Your task to perform on an android device: Open accessibility settings Image 0: 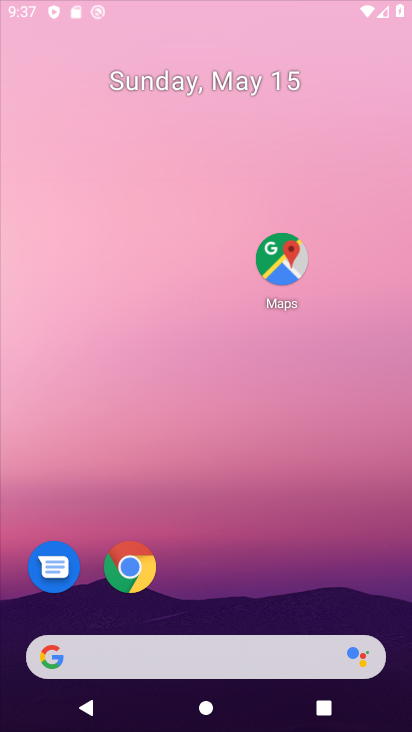
Step 0: click (344, 353)
Your task to perform on an android device: Open accessibility settings Image 1: 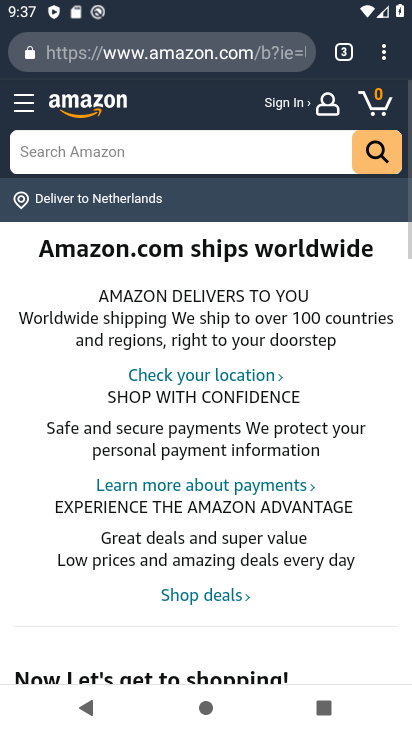
Step 1: press home button
Your task to perform on an android device: Open accessibility settings Image 2: 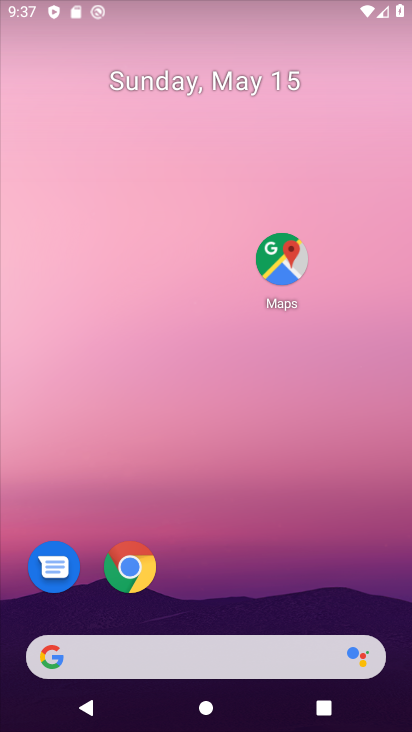
Step 2: drag from (257, 538) to (223, 3)
Your task to perform on an android device: Open accessibility settings Image 3: 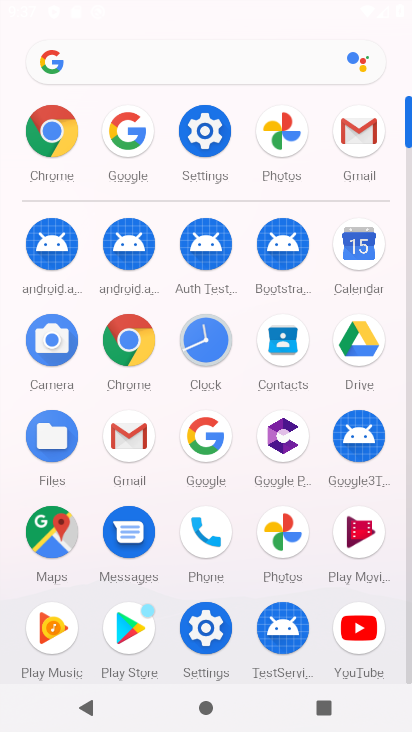
Step 3: click (200, 133)
Your task to perform on an android device: Open accessibility settings Image 4: 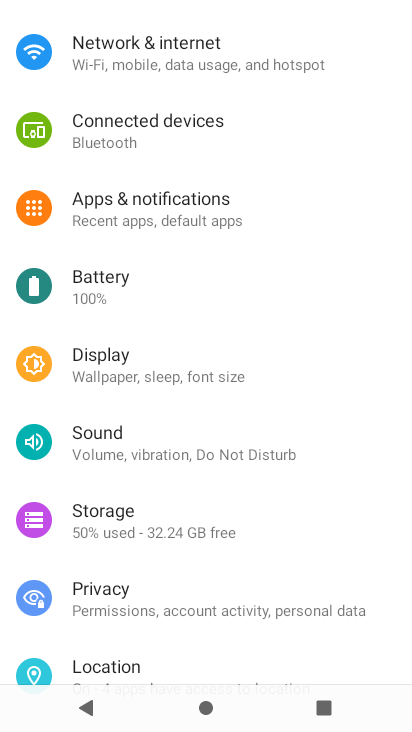
Step 4: drag from (174, 102) to (194, 14)
Your task to perform on an android device: Open accessibility settings Image 5: 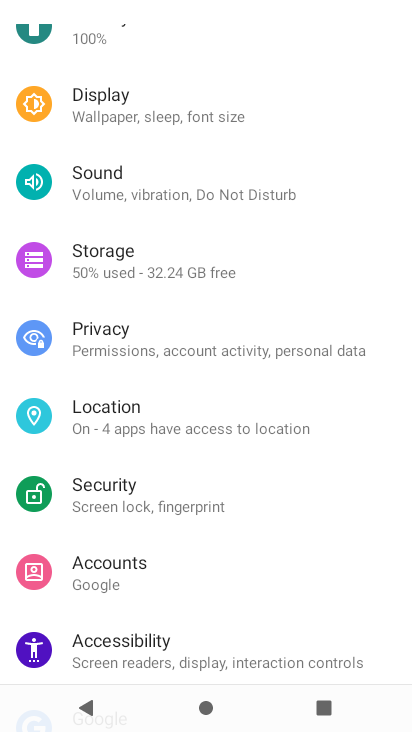
Step 5: drag from (206, 444) to (195, 208)
Your task to perform on an android device: Open accessibility settings Image 6: 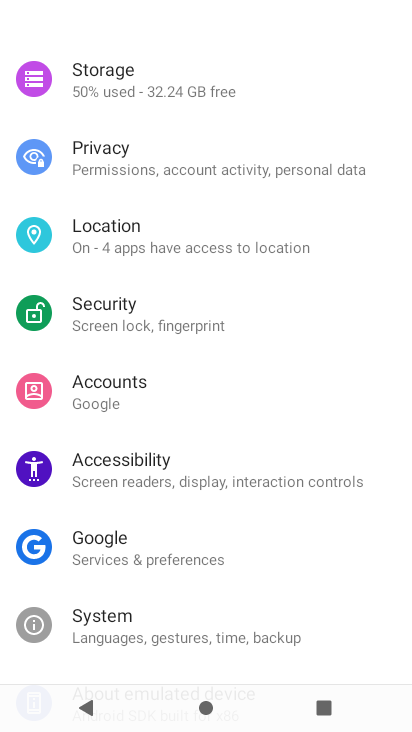
Step 6: click (103, 464)
Your task to perform on an android device: Open accessibility settings Image 7: 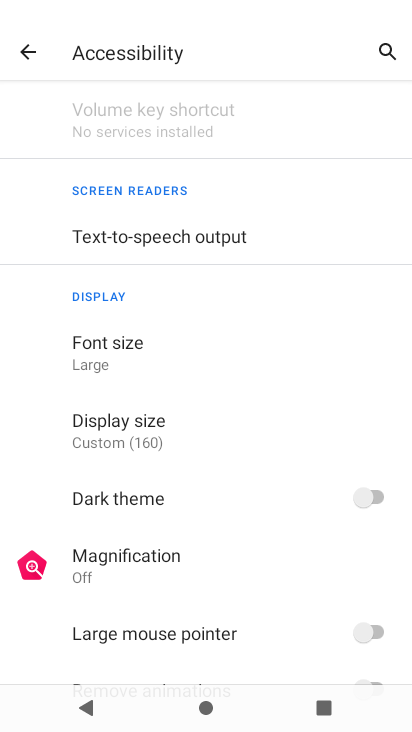
Step 7: task complete